Your task to perform on an android device: Open calendar and show me the fourth week of next month Image 0: 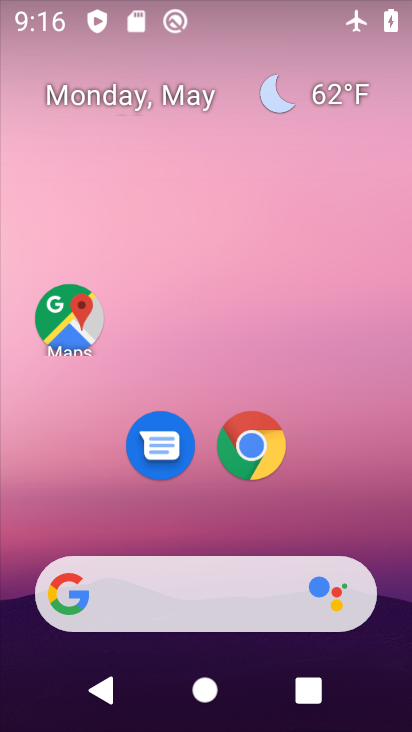
Step 0: drag from (400, 621) to (253, 33)
Your task to perform on an android device: Open calendar and show me the fourth week of next month Image 1: 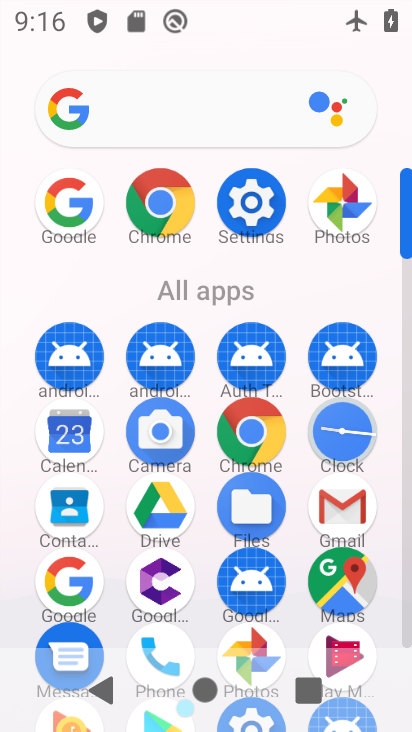
Step 1: click (55, 432)
Your task to perform on an android device: Open calendar and show me the fourth week of next month Image 2: 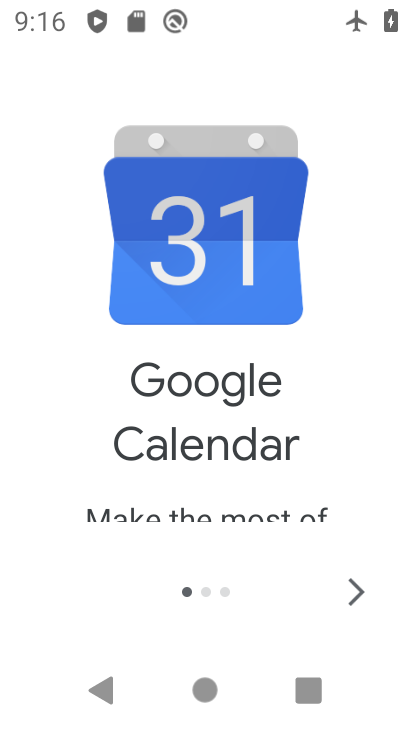
Step 2: click (357, 590)
Your task to perform on an android device: Open calendar and show me the fourth week of next month Image 3: 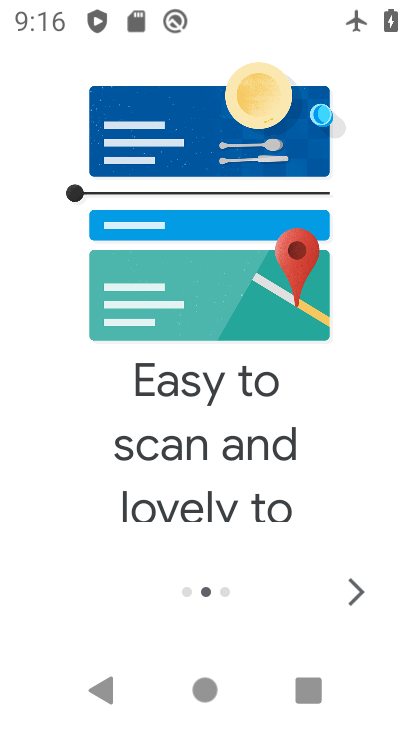
Step 3: click (357, 590)
Your task to perform on an android device: Open calendar and show me the fourth week of next month Image 4: 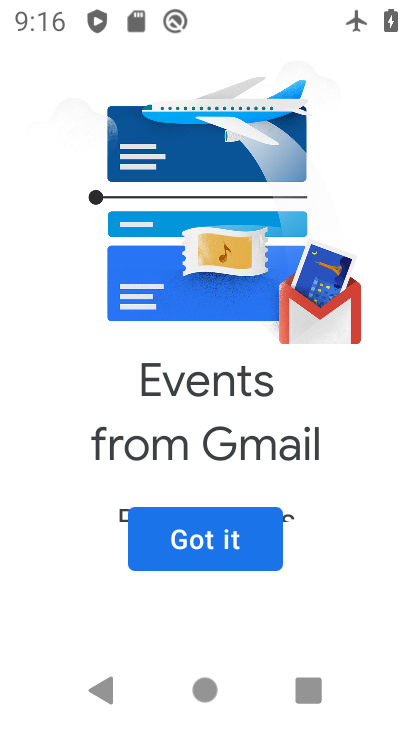
Step 4: click (256, 539)
Your task to perform on an android device: Open calendar and show me the fourth week of next month Image 5: 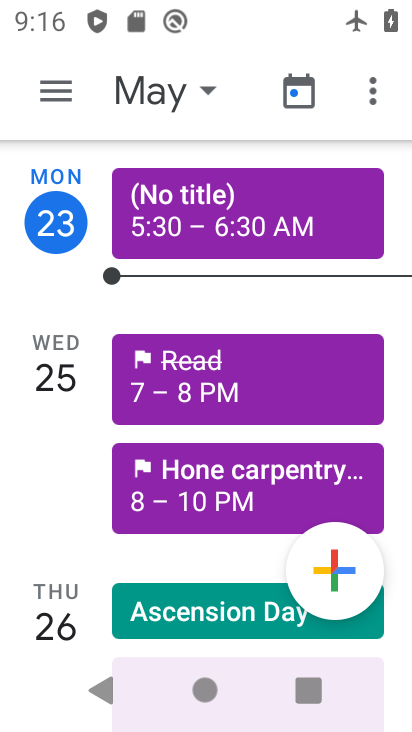
Step 5: click (155, 96)
Your task to perform on an android device: Open calendar and show me the fourth week of next month Image 6: 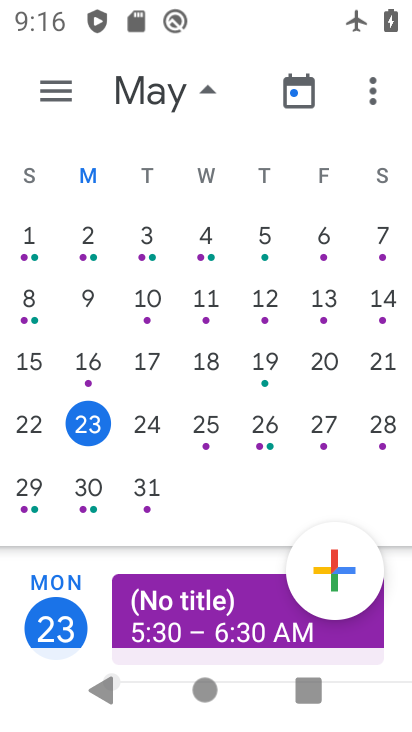
Step 6: drag from (368, 317) to (13, 269)
Your task to perform on an android device: Open calendar and show me the fourth week of next month Image 7: 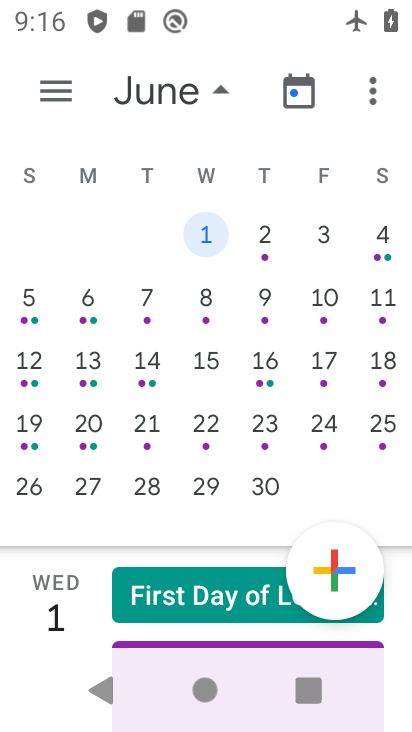
Step 7: click (82, 484)
Your task to perform on an android device: Open calendar and show me the fourth week of next month Image 8: 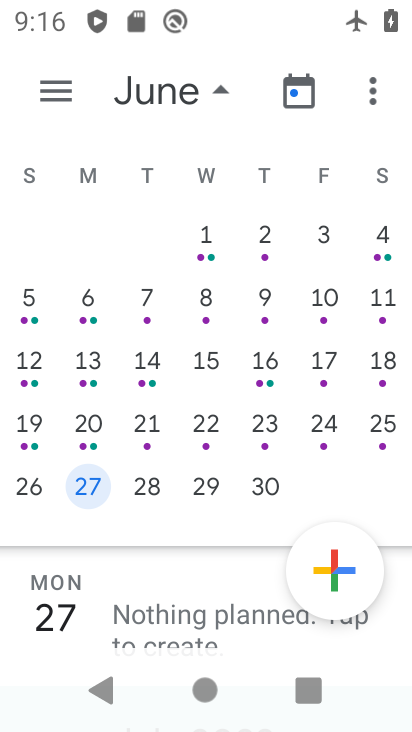
Step 8: task complete